Your task to perform on an android device: manage bookmarks in the chrome app Image 0: 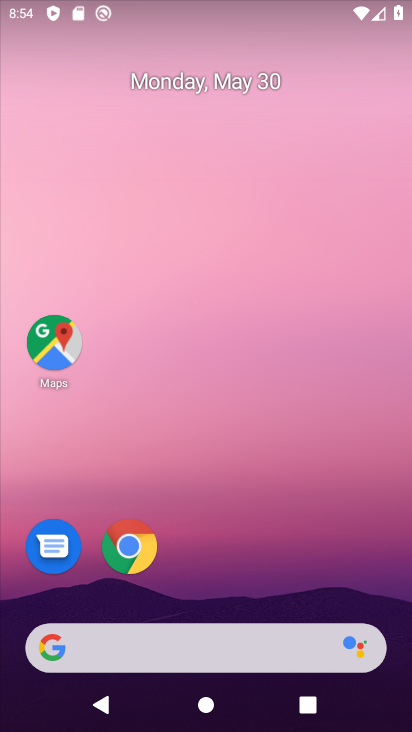
Step 0: click (130, 552)
Your task to perform on an android device: manage bookmarks in the chrome app Image 1: 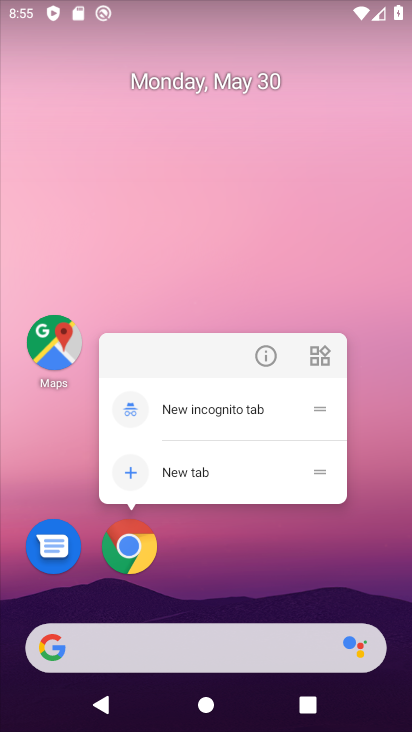
Step 1: click (117, 540)
Your task to perform on an android device: manage bookmarks in the chrome app Image 2: 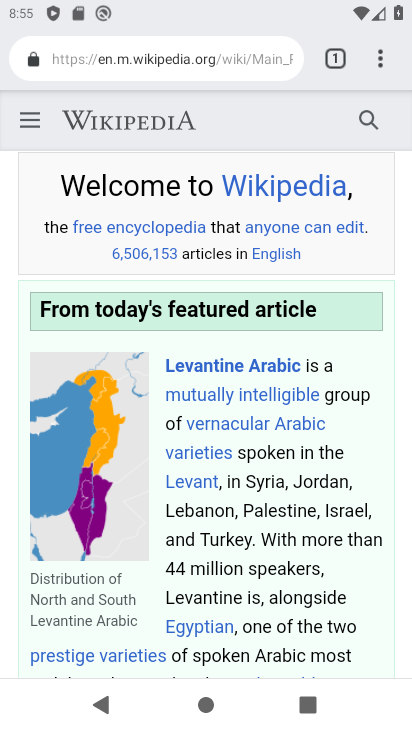
Step 2: click (377, 59)
Your task to perform on an android device: manage bookmarks in the chrome app Image 3: 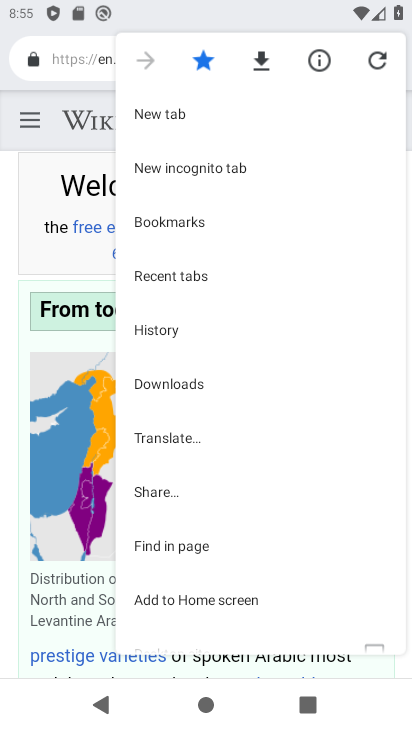
Step 3: click (200, 221)
Your task to perform on an android device: manage bookmarks in the chrome app Image 4: 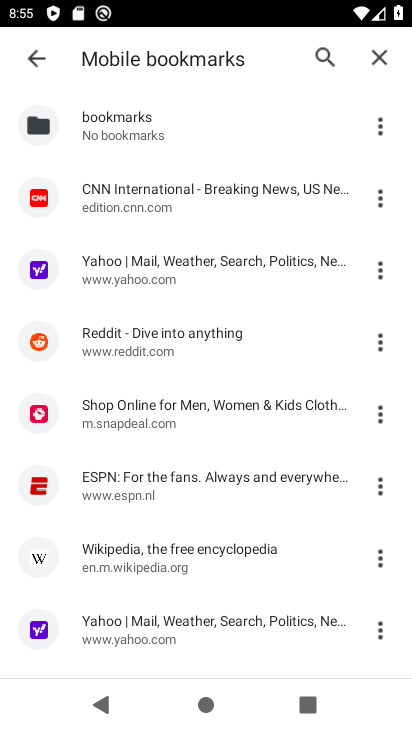
Step 4: click (384, 204)
Your task to perform on an android device: manage bookmarks in the chrome app Image 5: 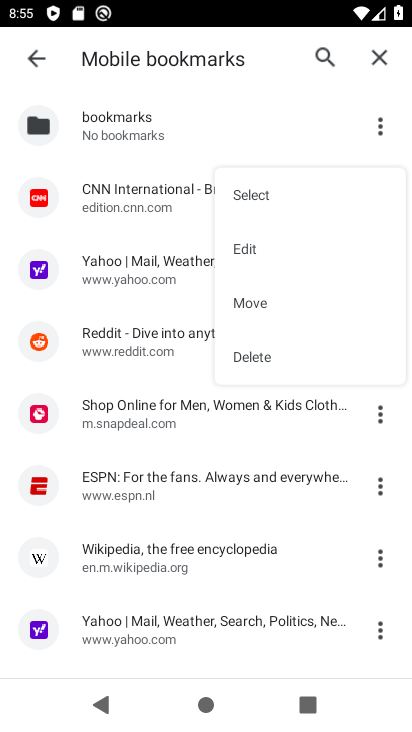
Step 5: click (244, 359)
Your task to perform on an android device: manage bookmarks in the chrome app Image 6: 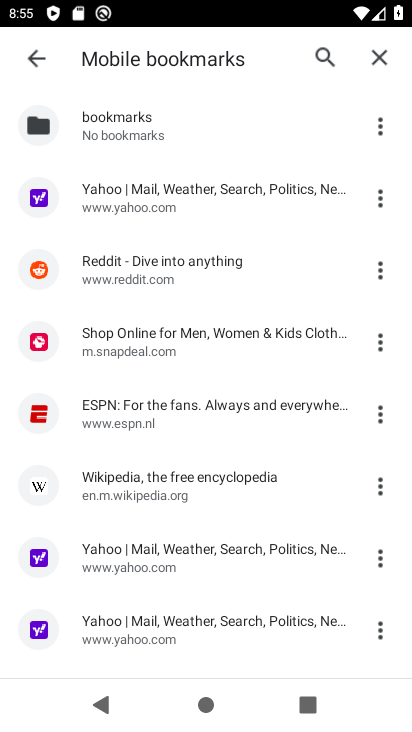
Step 6: task complete